Your task to perform on an android device: turn on sleep mode Image 0: 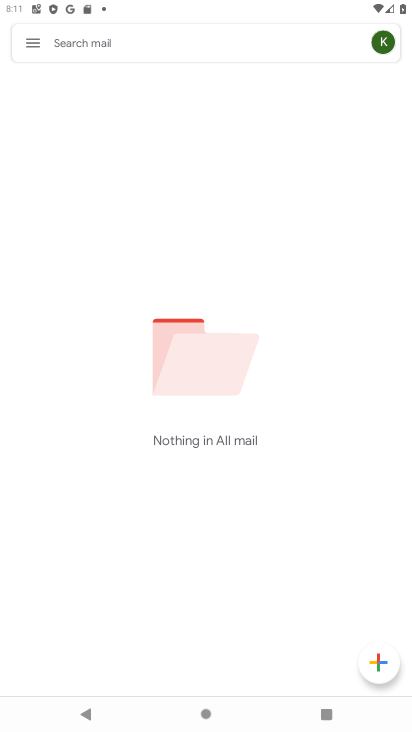
Step 0: press home button
Your task to perform on an android device: turn on sleep mode Image 1: 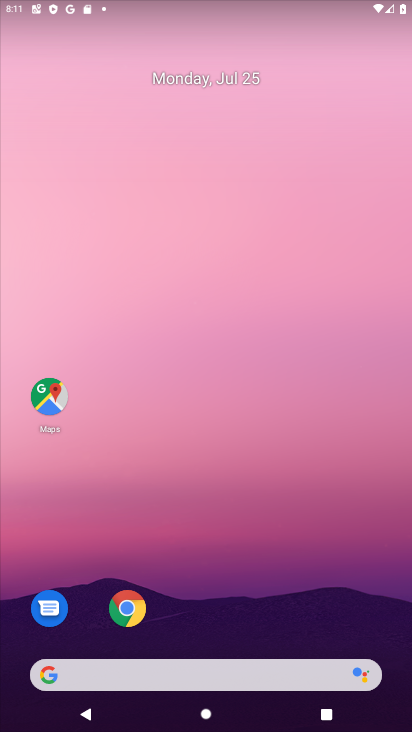
Step 1: drag from (270, 629) to (322, 219)
Your task to perform on an android device: turn on sleep mode Image 2: 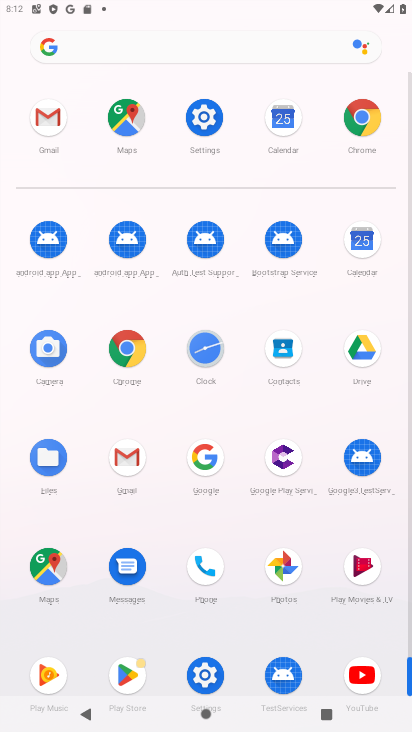
Step 2: click (202, 116)
Your task to perform on an android device: turn on sleep mode Image 3: 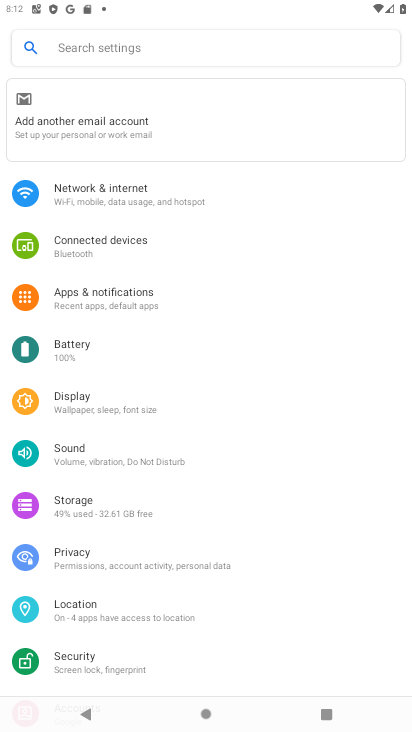
Step 3: click (122, 407)
Your task to perform on an android device: turn on sleep mode Image 4: 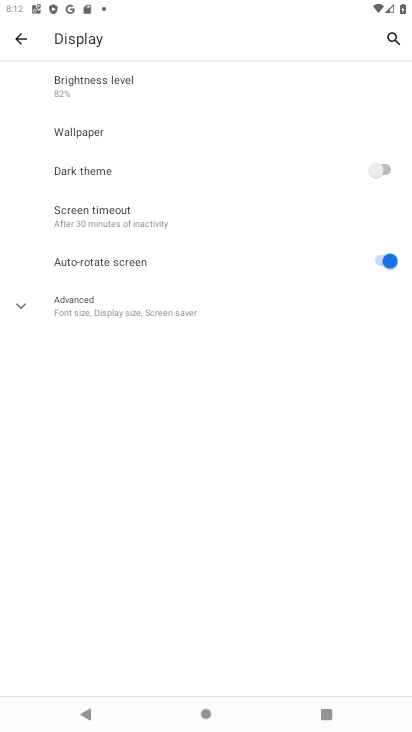
Step 4: click (208, 302)
Your task to perform on an android device: turn on sleep mode Image 5: 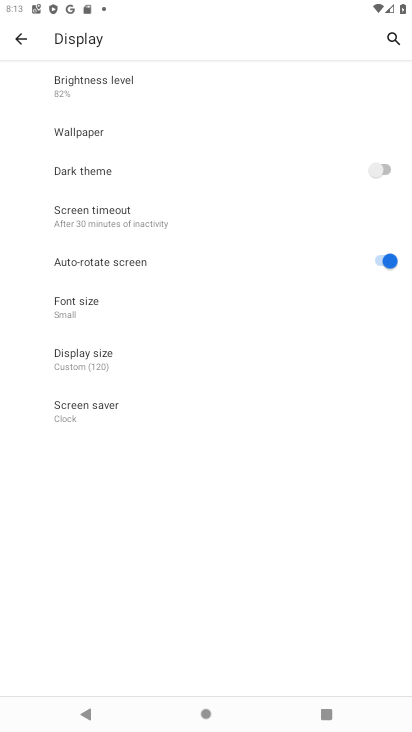
Step 5: task complete